Your task to perform on an android device: check the backup settings in the google photos Image 0: 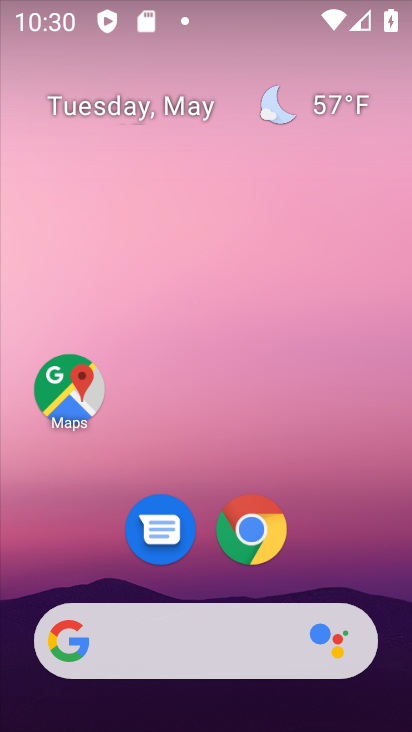
Step 0: drag from (209, 577) to (339, 208)
Your task to perform on an android device: check the backup settings in the google photos Image 1: 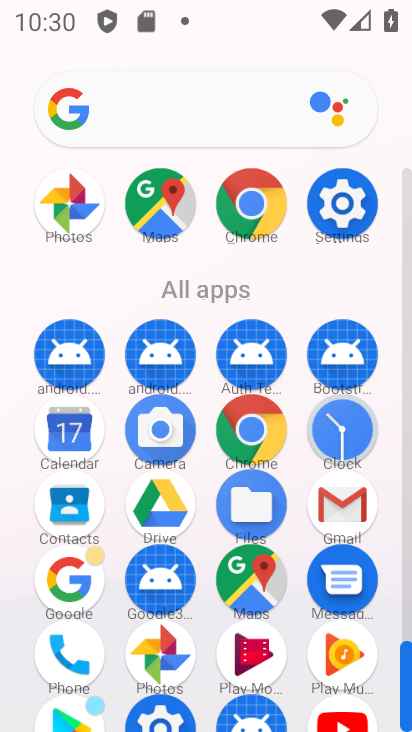
Step 1: click (72, 247)
Your task to perform on an android device: check the backup settings in the google photos Image 2: 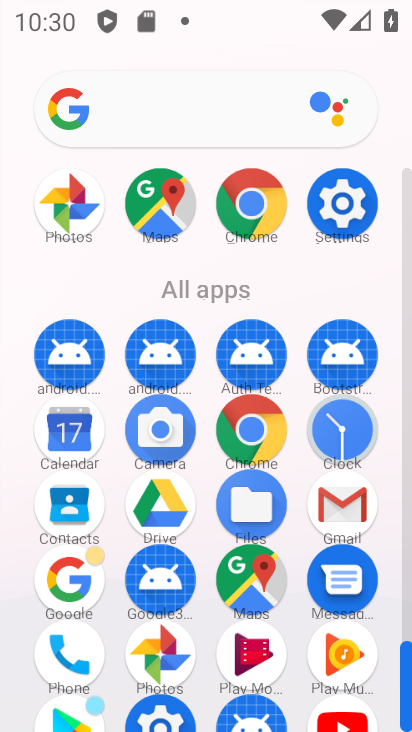
Step 2: click (176, 654)
Your task to perform on an android device: check the backup settings in the google photos Image 3: 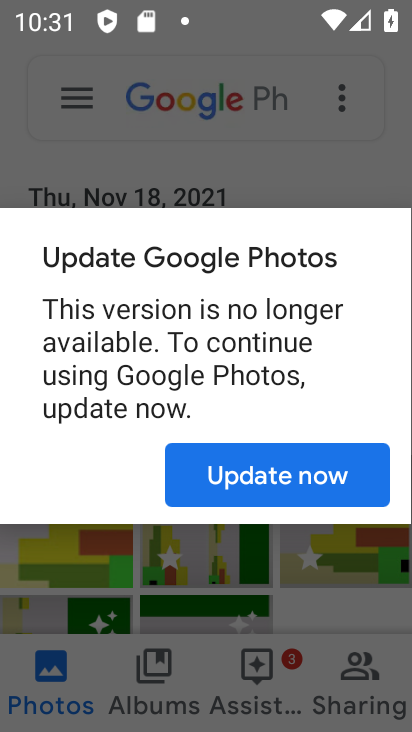
Step 3: click (292, 491)
Your task to perform on an android device: check the backup settings in the google photos Image 4: 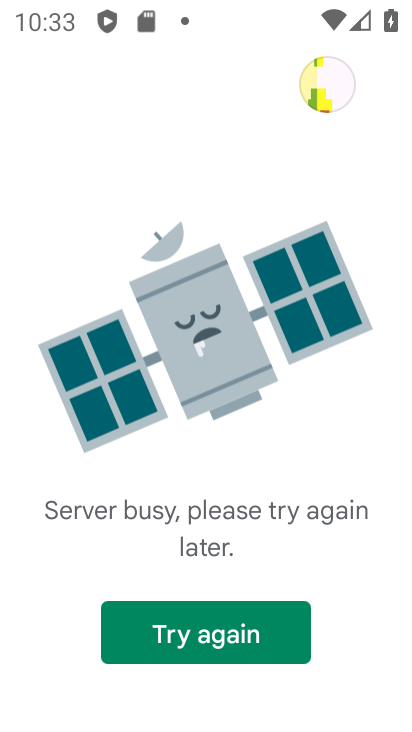
Step 4: task complete